Your task to perform on an android device: turn off smart reply in the gmail app Image 0: 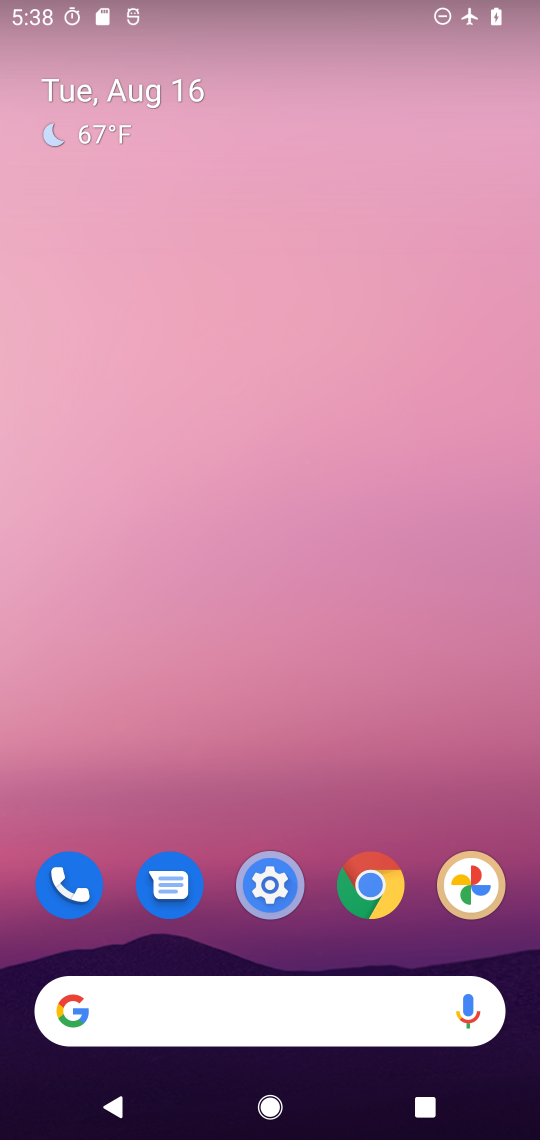
Step 0: drag from (290, 525) to (290, 131)
Your task to perform on an android device: turn off smart reply in the gmail app Image 1: 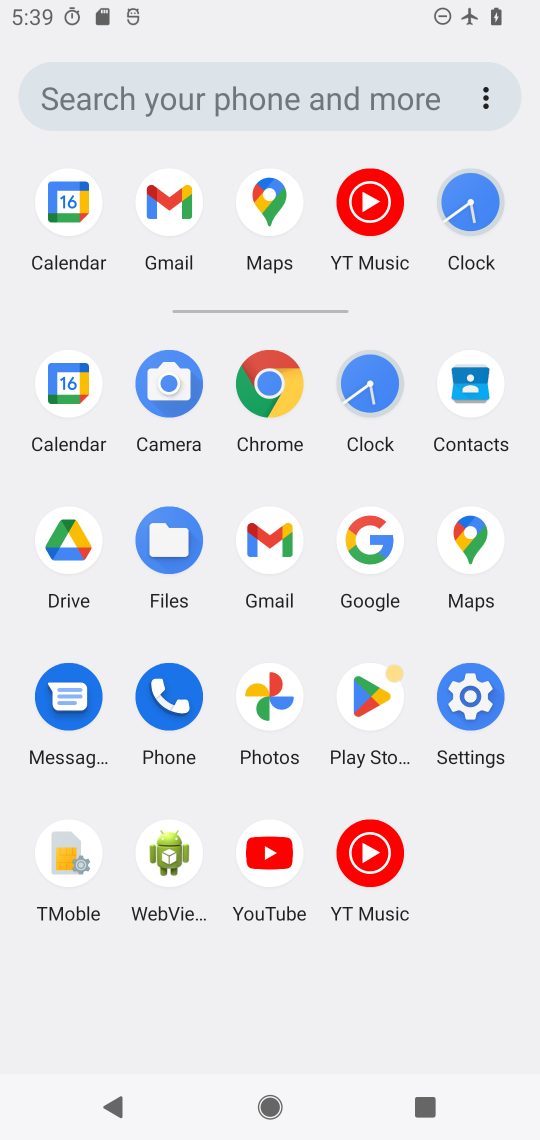
Step 1: click (277, 550)
Your task to perform on an android device: turn off smart reply in the gmail app Image 2: 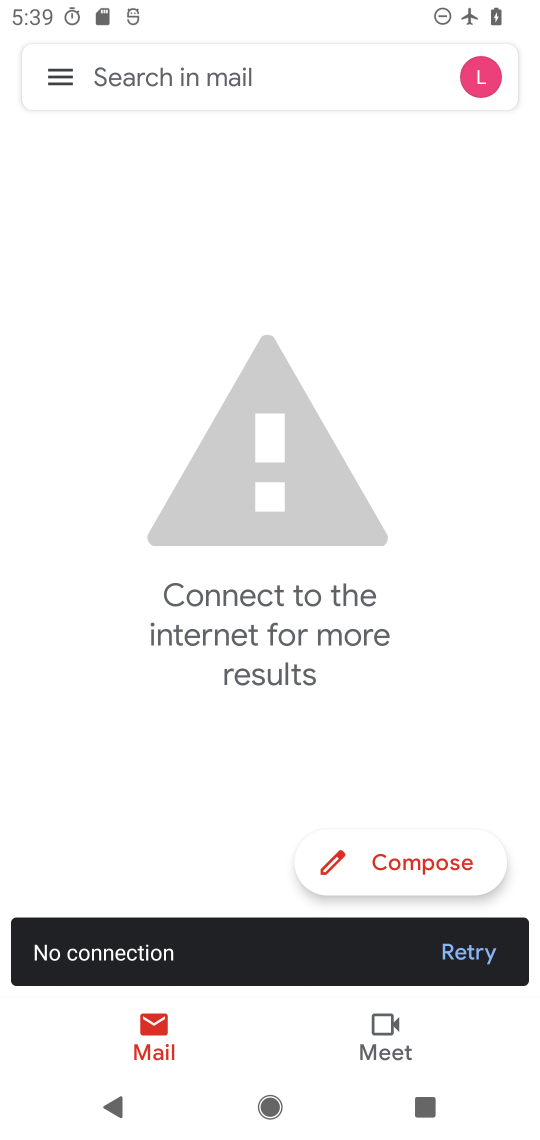
Step 2: click (58, 65)
Your task to perform on an android device: turn off smart reply in the gmail app Image 3: 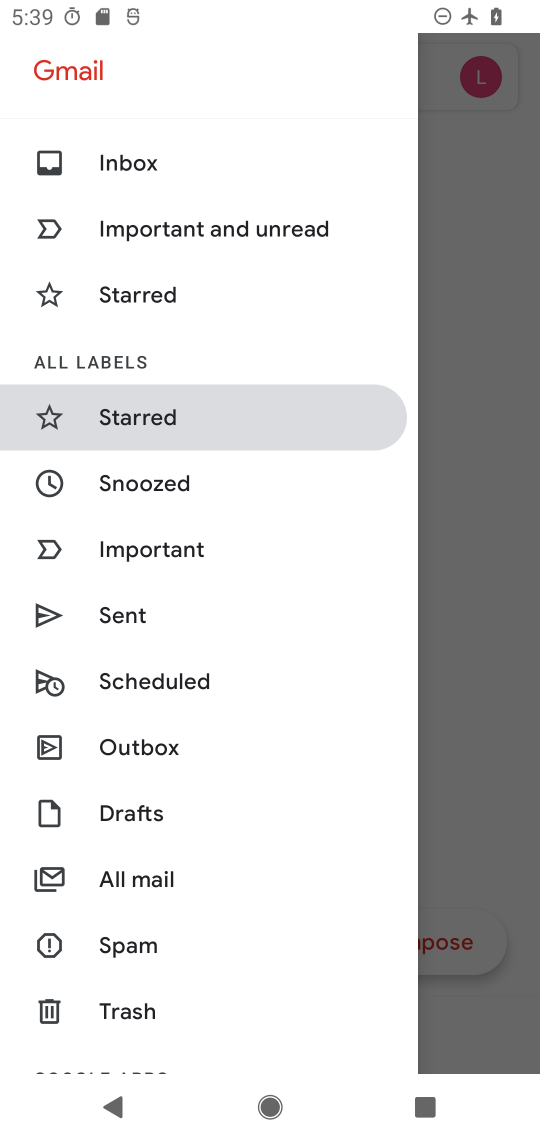
Step 3: drag from (189, 999) to (230, 255)
Your task to perform on an android device: turn off smart reply in the gmail app Image 4: 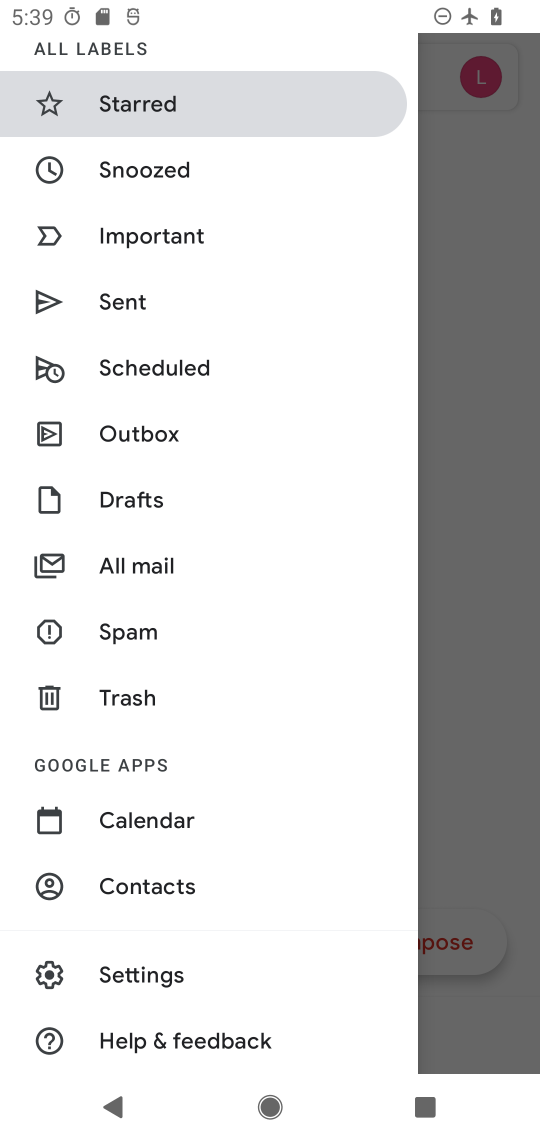
Step 4: click (157, 966)
Your task to perform on an android device: turn off smart reply in the gmail app Image 5: 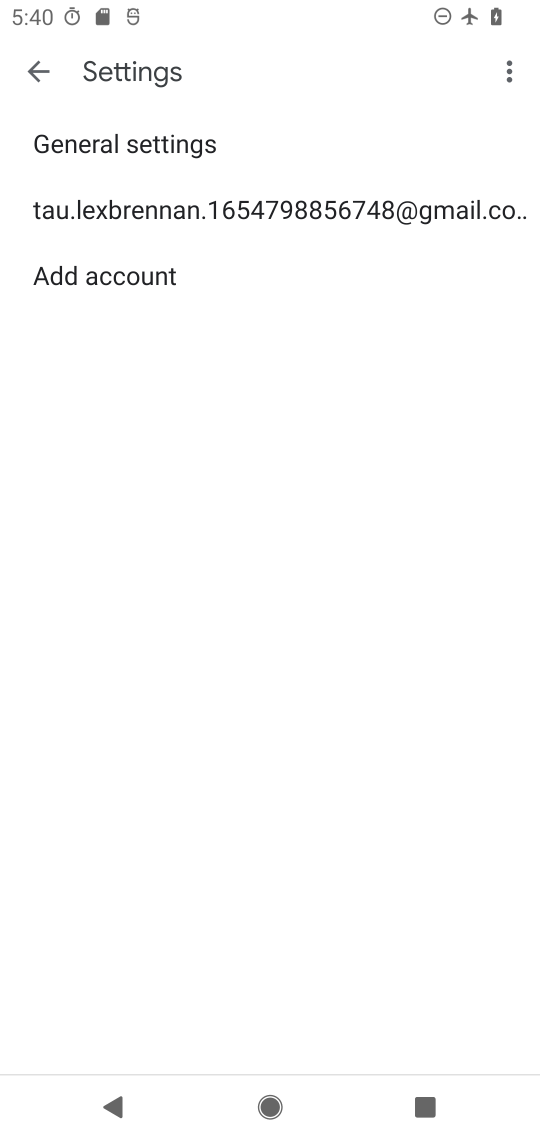
Step 5: click (153, 219)
Your task to perform on an android device: turn off smart reply in the gmail app Image 6: 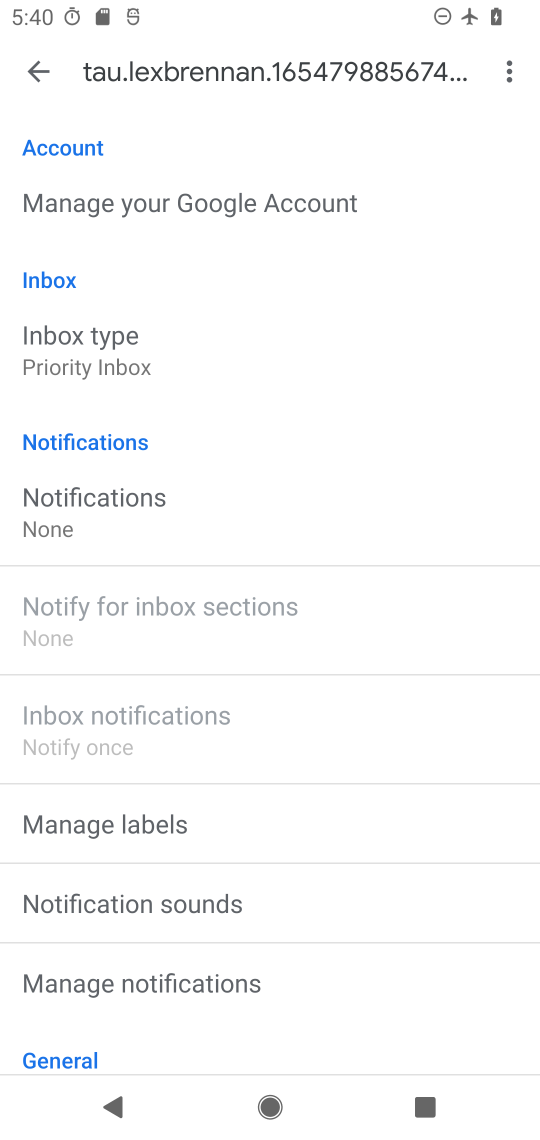
Step 6: task complete